Your task to perform on an android device: turn on the 12-hour format for clock Image 0: 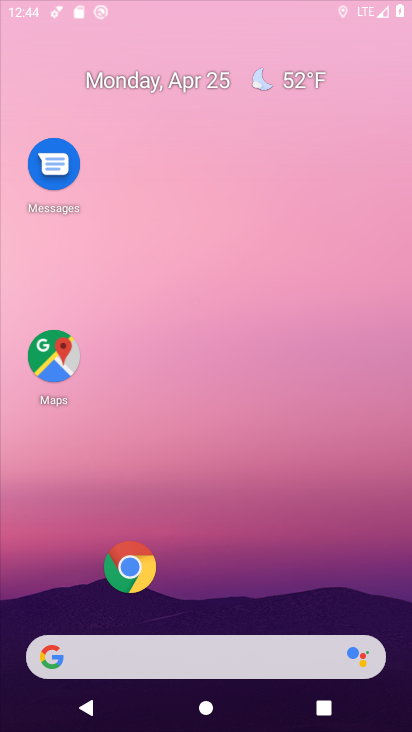
Step 0: click (225, 120)
Your task to perform on an android device: turn on the 12-hour format for clock Image 1: 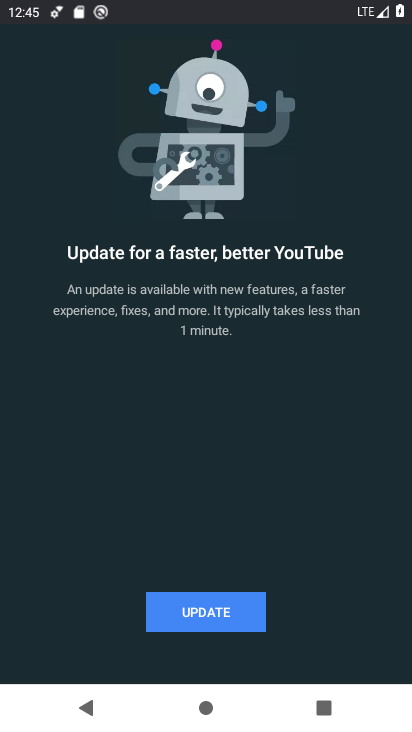
Step 1: press home button
Your task to perform on an android device: turn on the 12-hour format for clock Image 2: 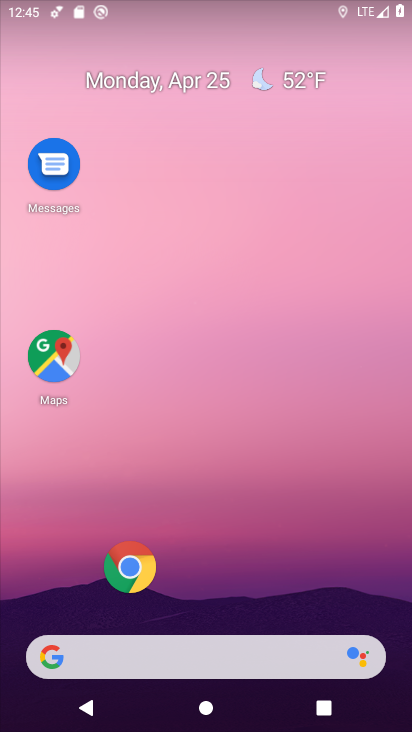
Step 2: drag from (219, 502) to (277, 67)
Your task to perform on an android device: turn on the 12-hour format for clock Image 3: 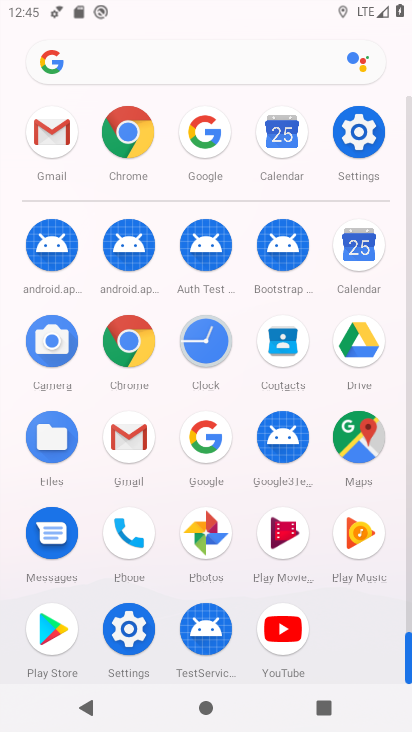
Step 3: click (350, 160)
Your task to perform on an android device: turn on the 12-hour format for clock Image 4: 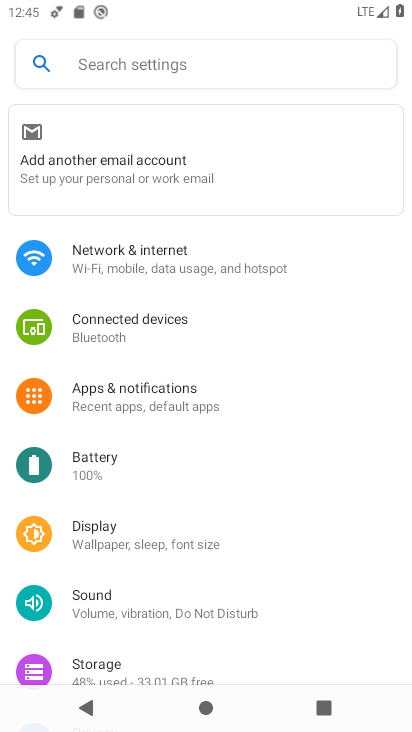
Step 4: press home button
Your task to perform on an android device: turn on the 12-hour format for clock Image 5: 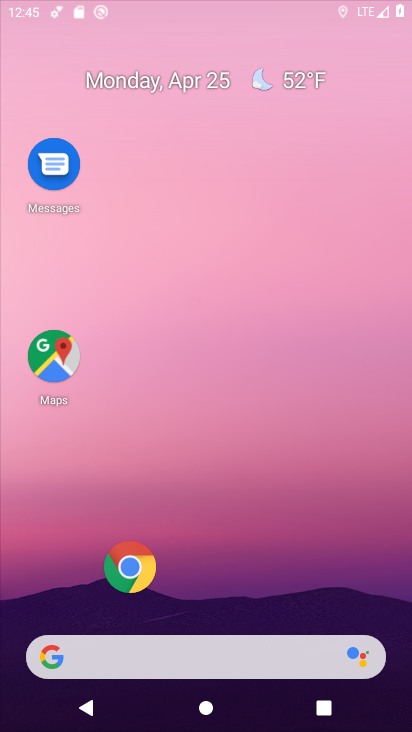
Step 5: drag from (254, 640) to (289, 130)
Your task to perform on an android device: turn on the 12-hour format for clock Image 6: 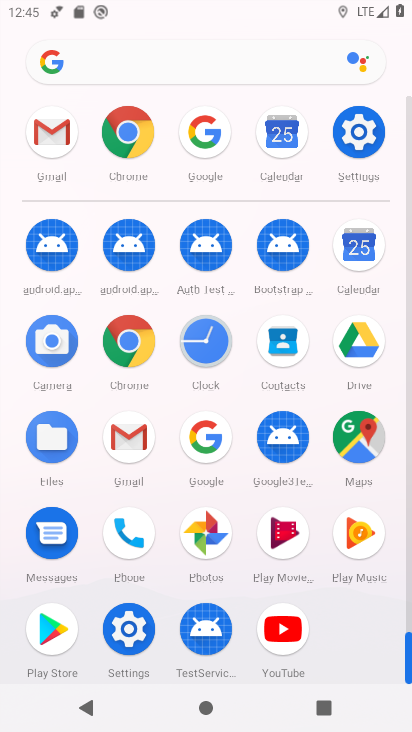
Step 6: click (198, 346)
Your task to perform on an android device: turn on the 12-hour format for clock Image 7: 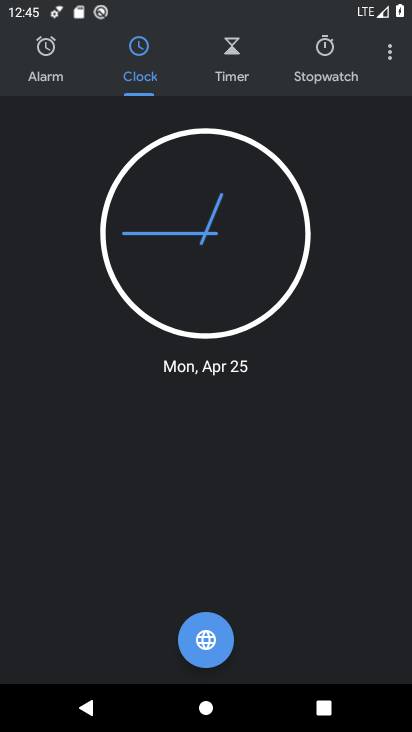
Step 7: click (387, 61)
Your task to perform on an android device: turn on the 12-hour format for clock Image 8: 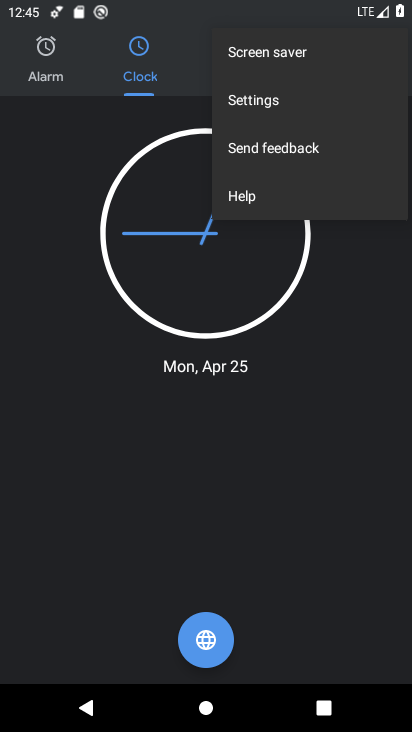
Step 8: click (274, 104)
Your task to perform on an android device: turn on the 12-hour format for clock Image 9: 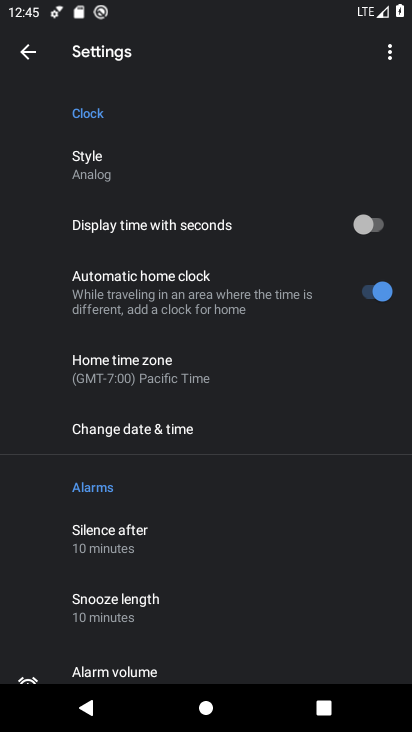
Step 9: click (153, 431)
Your task to perform on an android device: turn on the 12-hour format for clock Image 10: 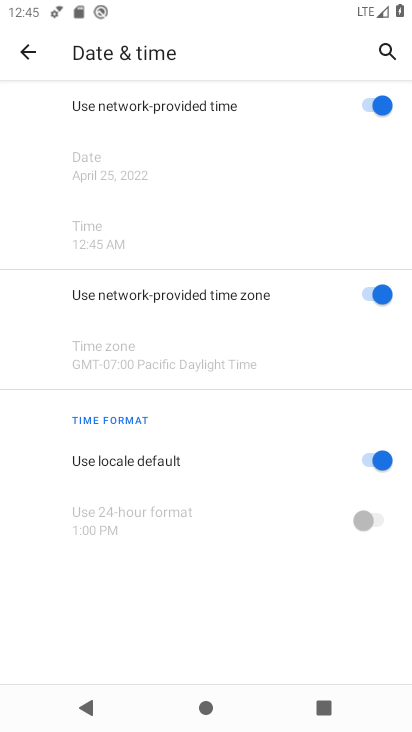
Step 10: task complete